Your task to perform on an android device: open the mobile data screen to see how much data has been used Image 0: 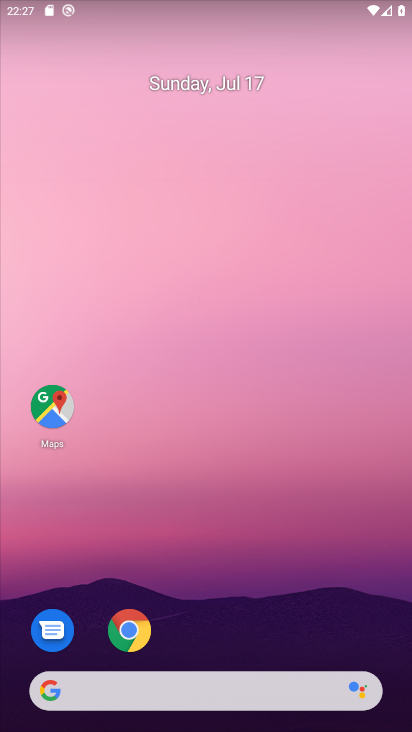
Step 0: drag from (217, 630) to (300, 21)
Your task to perform on an android device: open the mobile data screen to see how much data has been used Image 1: 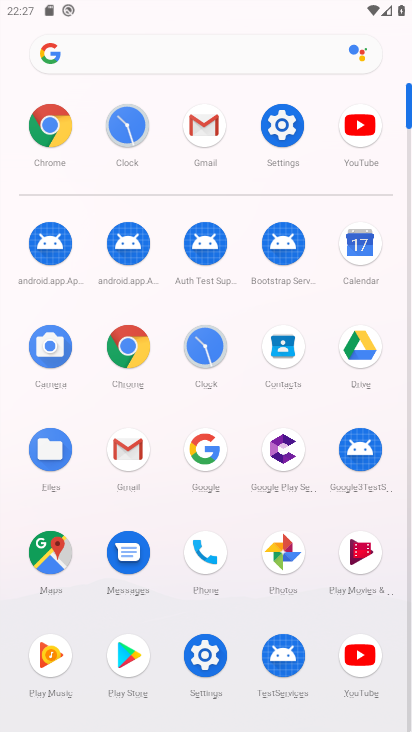
Step 1: click (200, 663)
Your task to perform on an android device: open the mobile data screen to see how much data has been used Image 2: 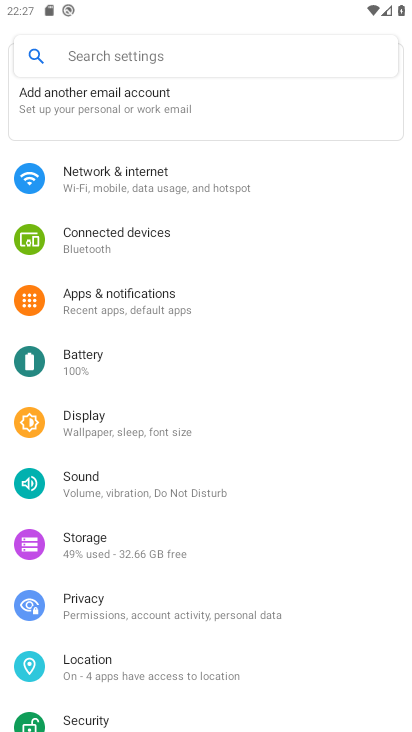
Step 2: drag from (162, 660) to (146, 696)
Your task to perform on an android device: open the mobile data screen to see how much data has been used Image 3: 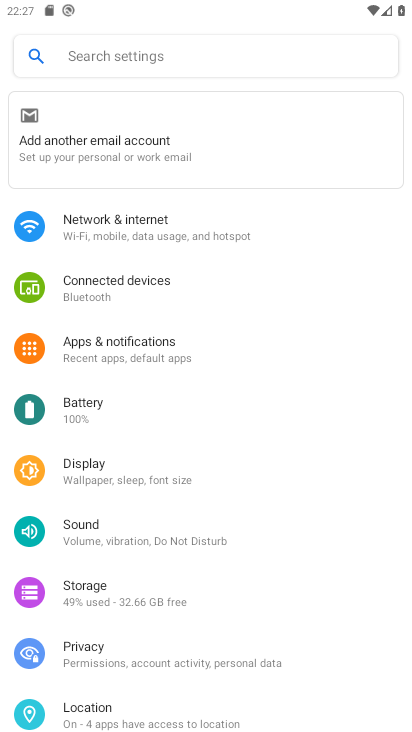
Step 3: click (135, 224)
Your task to perform on an android device: open the mobile data screen to see how much data has been used Image 4: 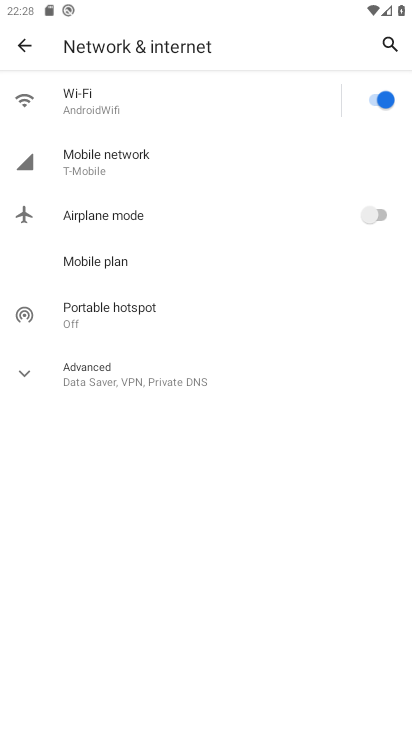
Step 4: click (137, 163)
Your task to perform on an android device: open the mobile data screen to see how much data has been used Image 5: 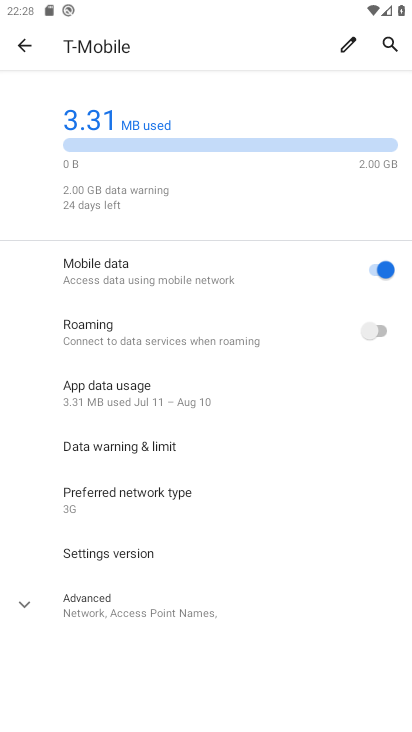
Step 5: click (177, 407)
Your task to perform on an android device: open the mobile data screen to see how much data has been used Image 6: 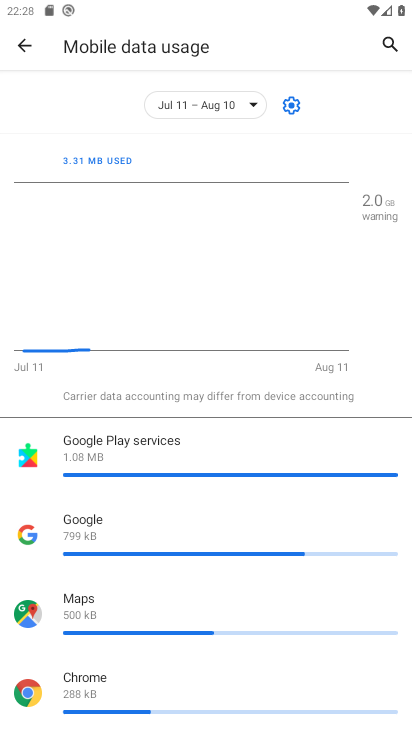
Step 6: task complete